Your task to perform on an android device: turn off location Image 0: 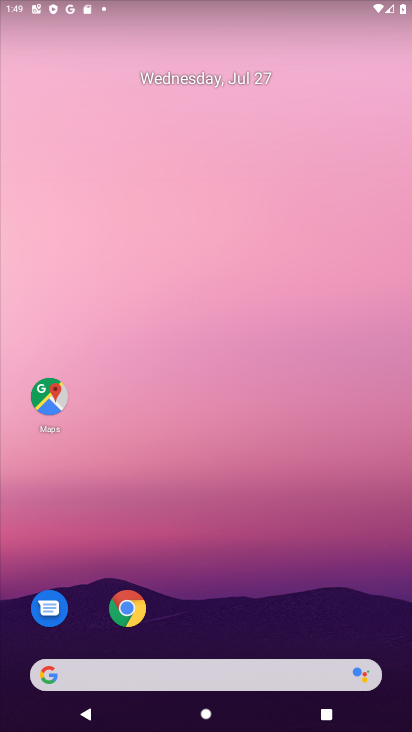
Step 0: drag from (97, 524) to (178, 236)
Your task to perform on an android device: turn off location Image 1: 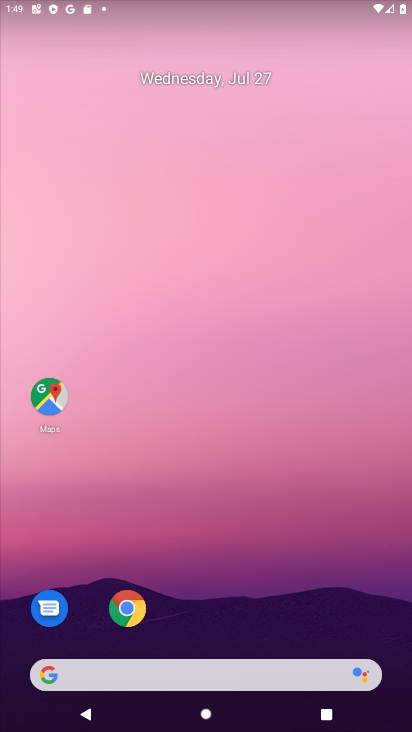
Step 1: drag from (49, 710) to (219, 83)
Your task to perform on an android device: turn off location Image 2: 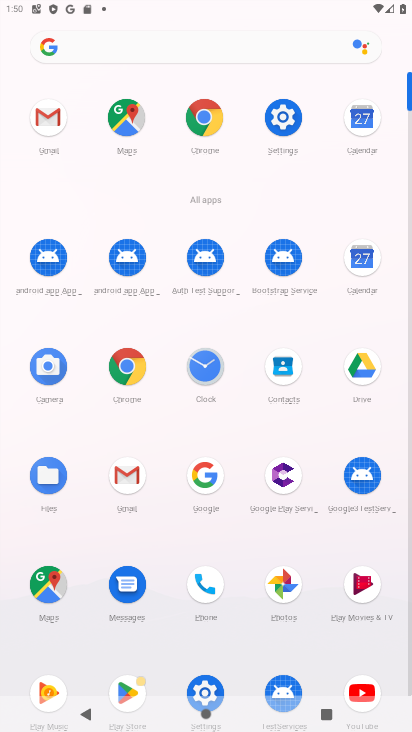
Step 2: click (203, 694)
Your task to perform on an android device: turn off location Image 3: 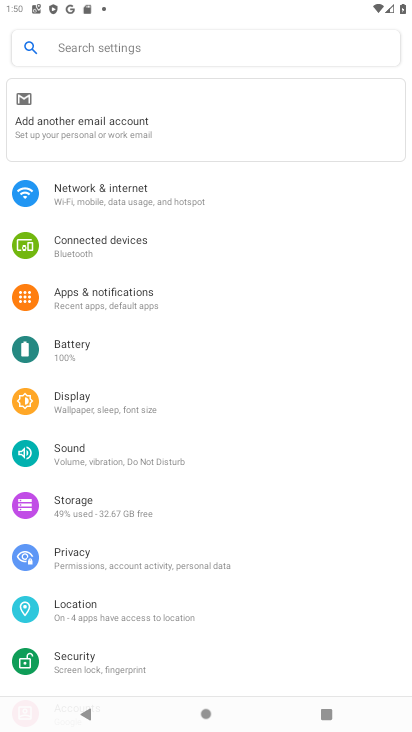
Step 3: click (85, 616)
Your task to perform on an android device: turn off location Image 4: 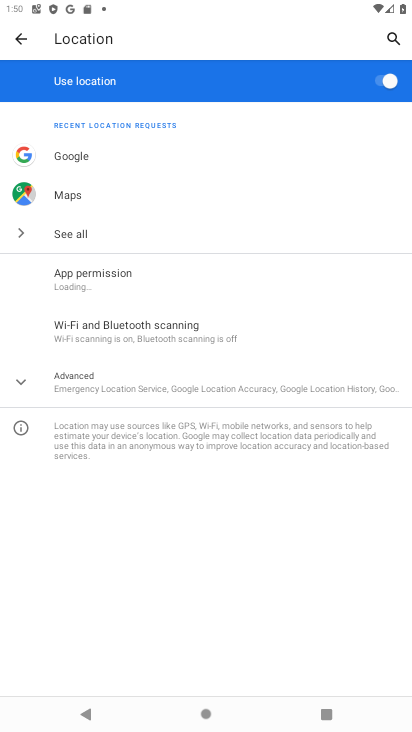
Step 4: click (398, 74)
Your task to perform on an android device: turn off location Image 5: 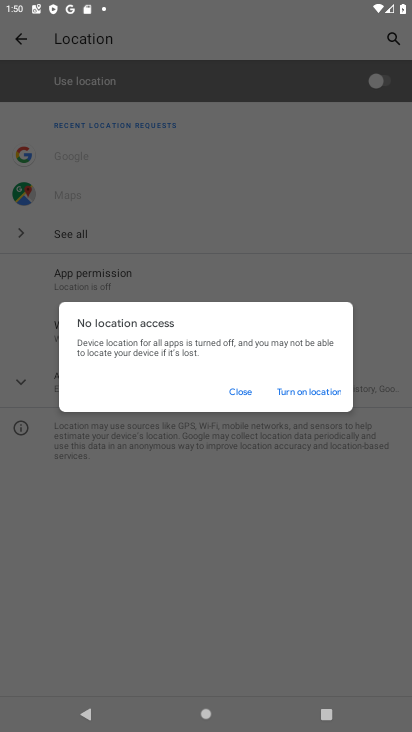
Step 5: task complete